Your task to perform on an android device: open device folders in google photos Image 0: 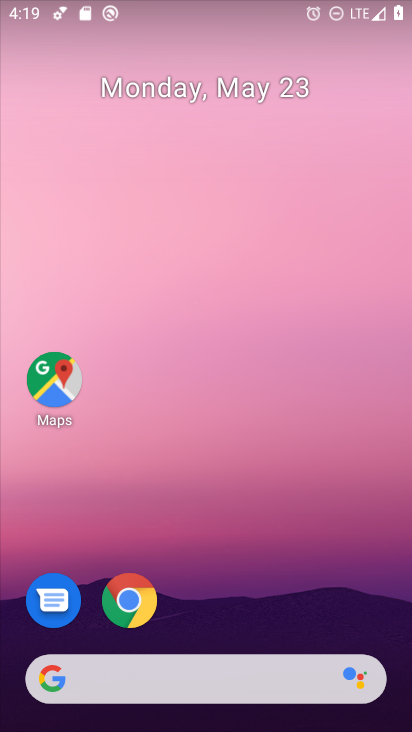
Step 0: drag from (318, 651) to (244, 48)
Your task to perform on an android device: open device folders in google photos Image 1: 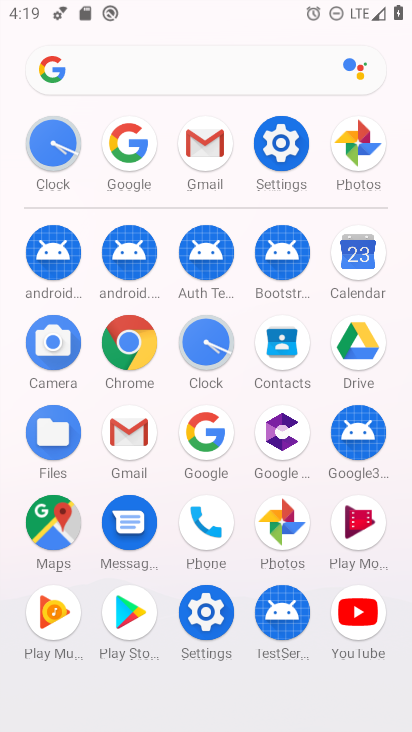
Step 1: click (360, 142)
Your task to perform on an android device: open device folders in google photos Image 2: 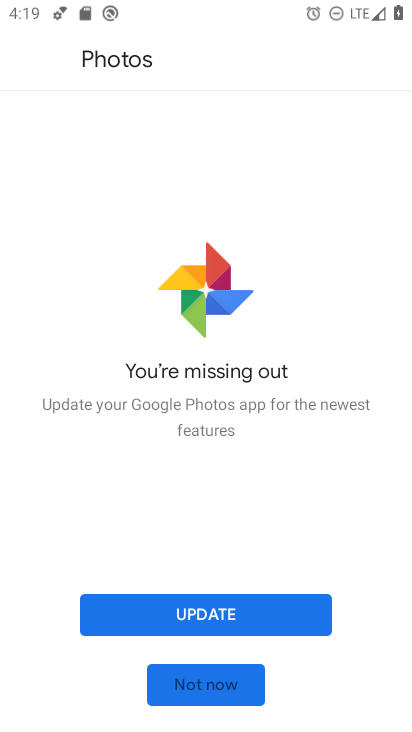
Step 2: click (221, 681)
Your task to perform on an android device: open device folders in google photos Image 3: 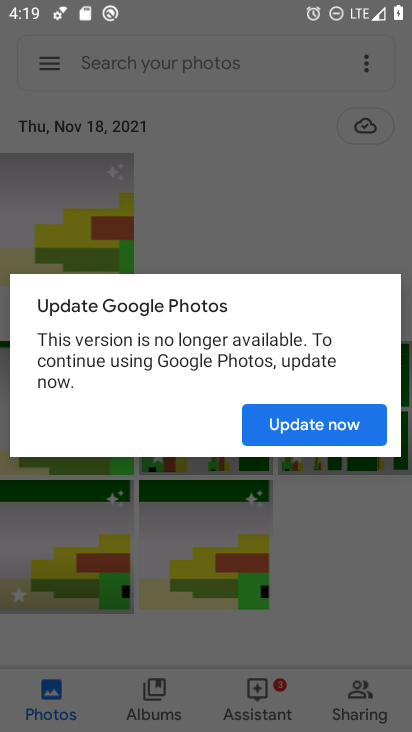
Step 3: click (307, 428)
Your task to perform on an android device: open device folders in google photos Image 4: 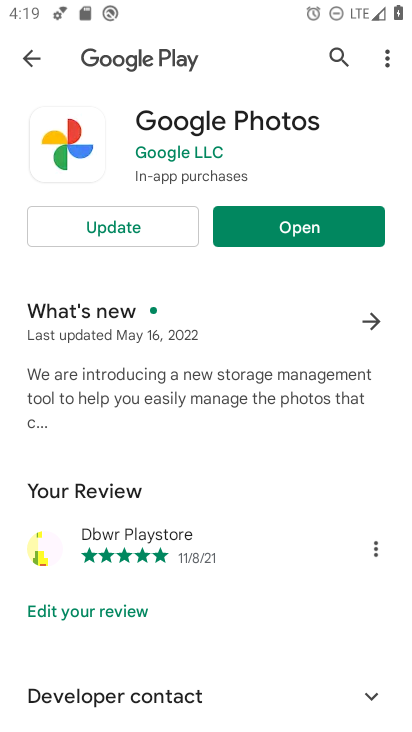
Step 4: click (284, 237)
Your task to perform on an android device: open device folders in google photos Image 5: 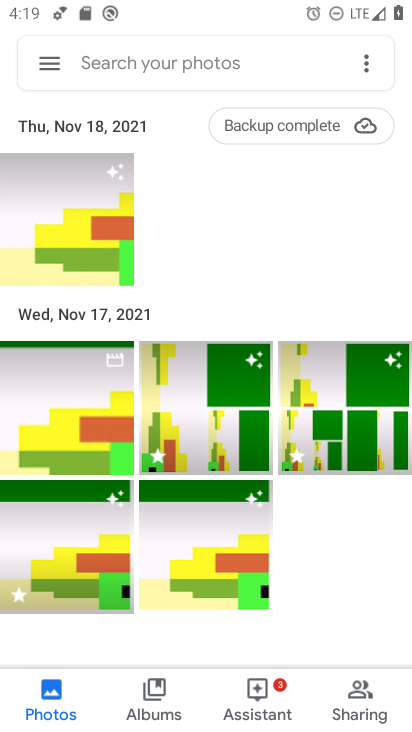
Step 5: click (51, 63)
Your task to perform on an android device: open device folders in google photos Image 6: 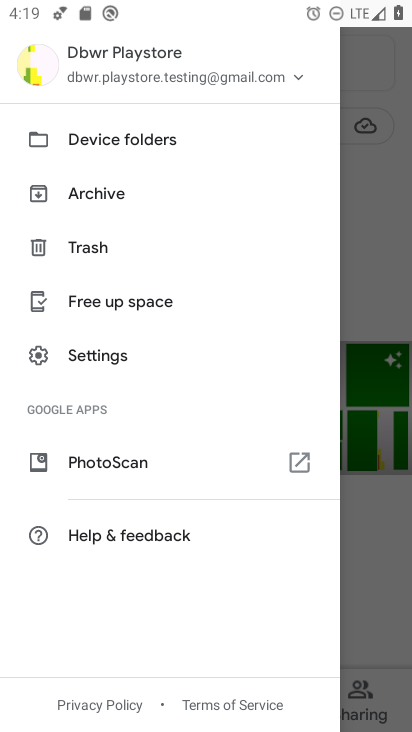
Step 6: click (82, 138)
Your task to perform on an android device: open device folders in google photos Image 7: 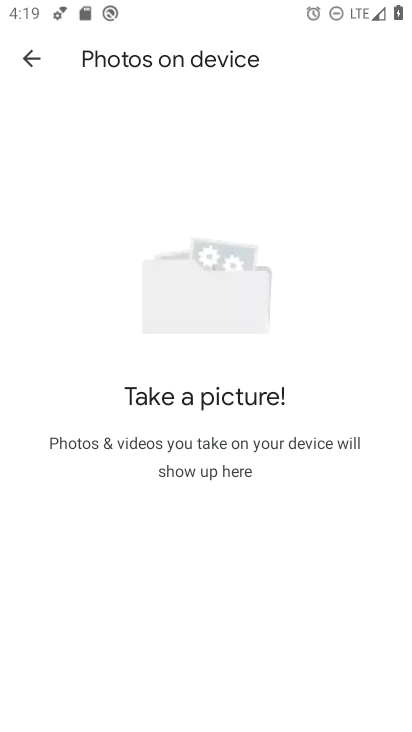
Step 7: task complete